Your task to perform on an android device: Check the news Image 0: 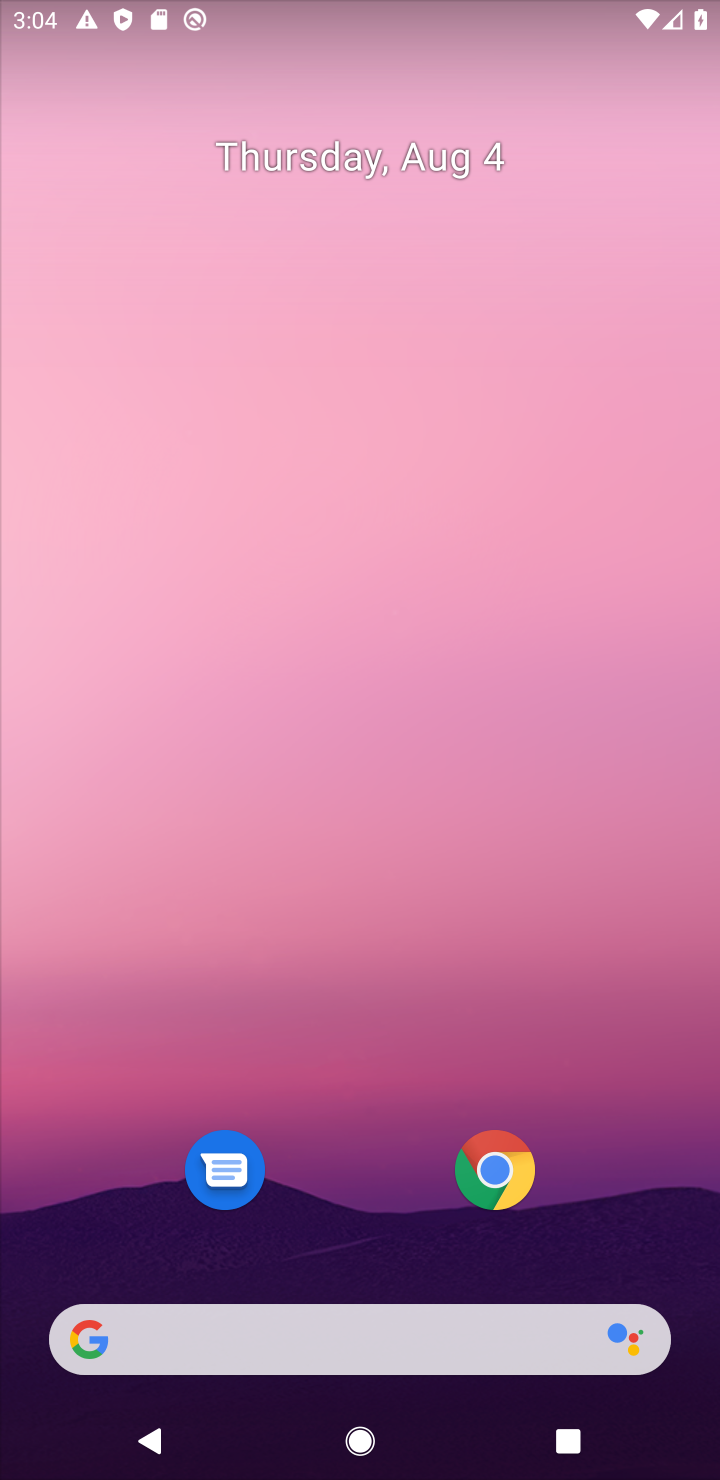
Step 0: drag from (56, 691) to (669, 679)
Your task to perform on an android device: Check the news Image 1: 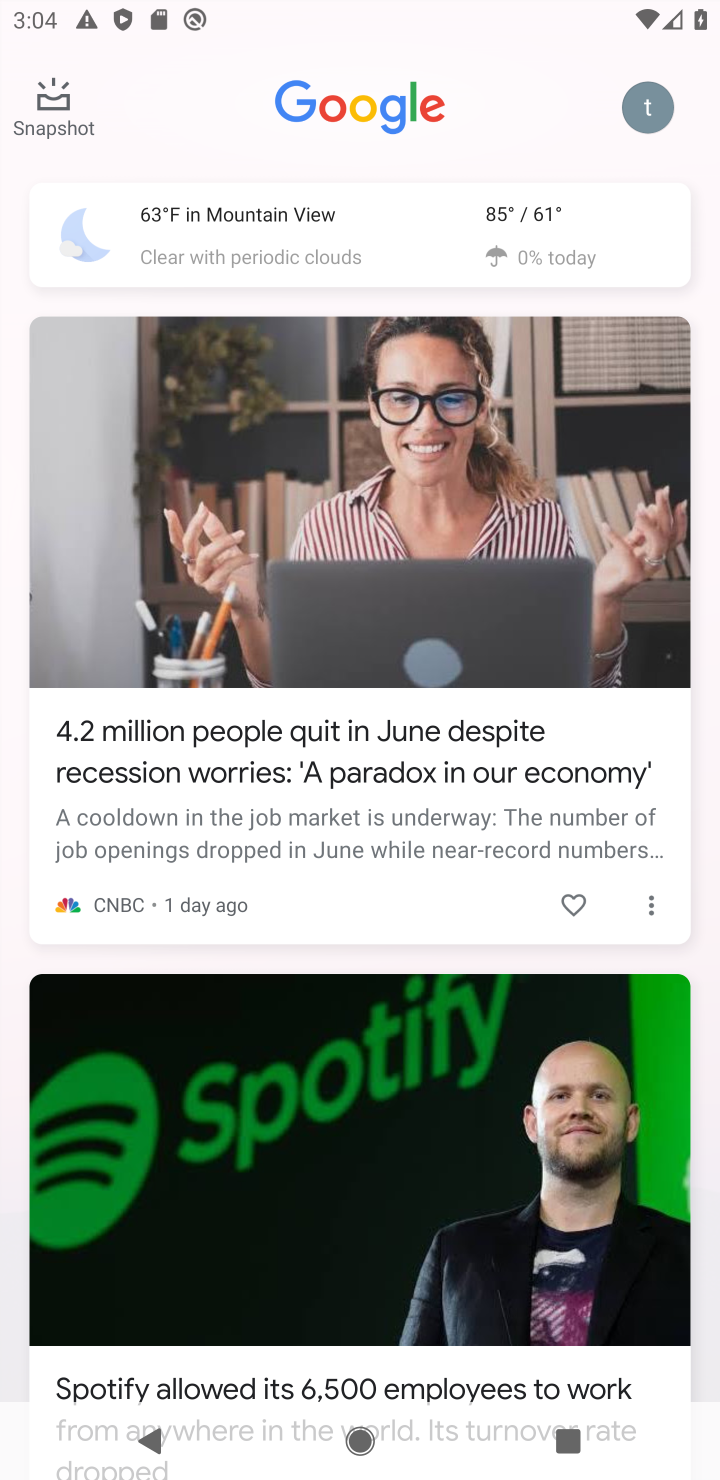
Step 1: task complete